Your task to perform on an android device: change your default location settings in chrome Image 0: 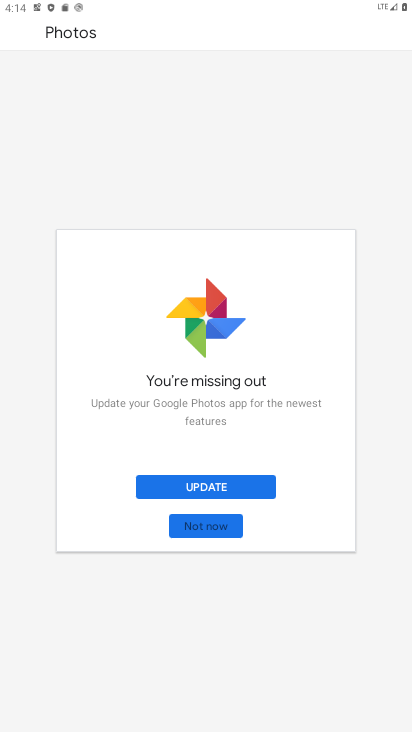
Step 0: press home button
Your task to perform on an android device: change your default location settings in chrome Image 1: 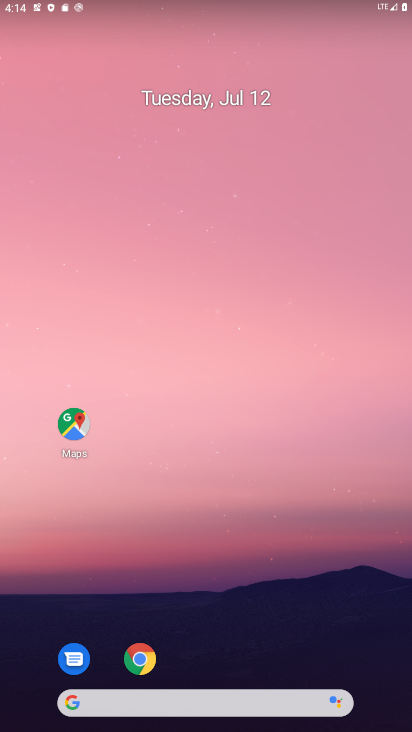
Step 1: click (139, 660)
Your task to perform on an android device: change your default location settings in chrome Image 2: 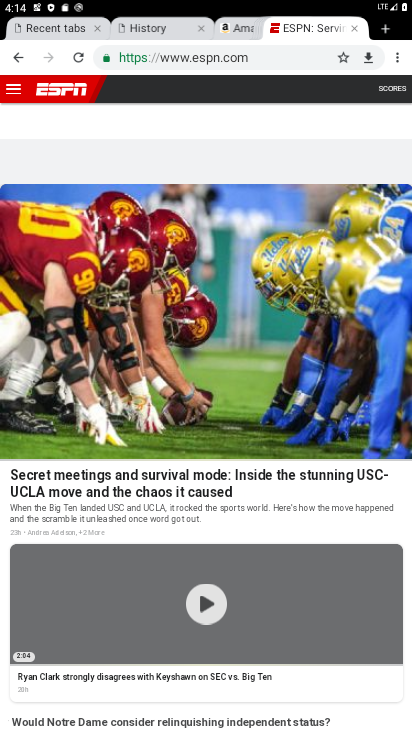
Step 2: click (398, 57)
Your task to perform on an android device: change your default location settings in chrome Image 3: 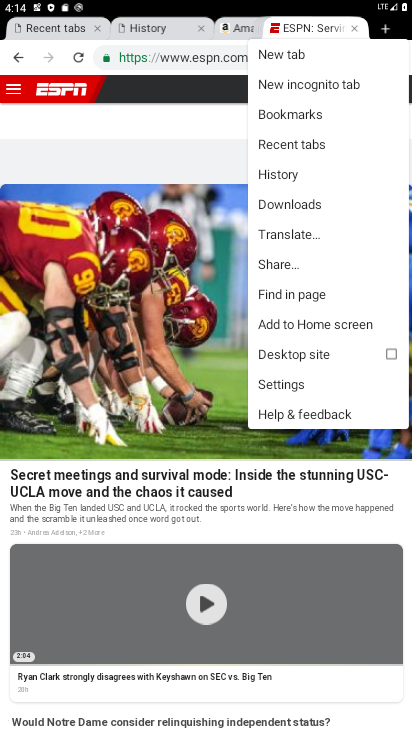
Step 3: click (297, 379)
Your task to perform on an android device: change your default location settings in chrome Image 4: 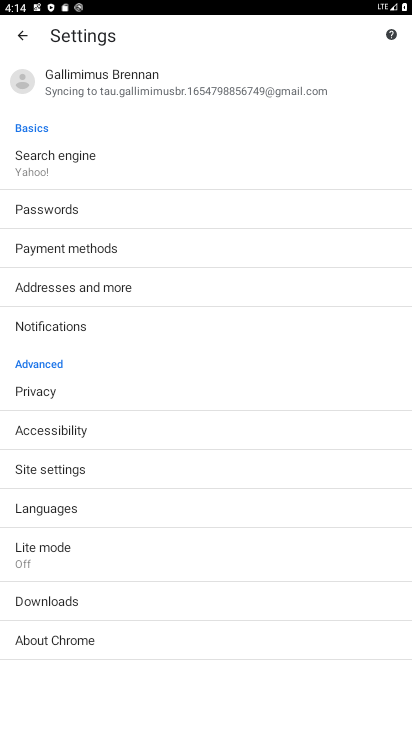
Step 4: click (43, 470)
Your task to perform on an android device: change your default location settings in chrome Image 5: 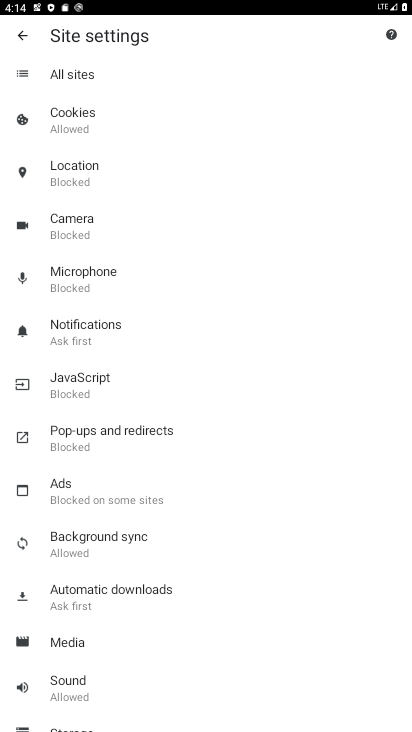
Step 5: click (73, 183)
Your task to perform on an android device: change your default location settings in chrome Image 6: 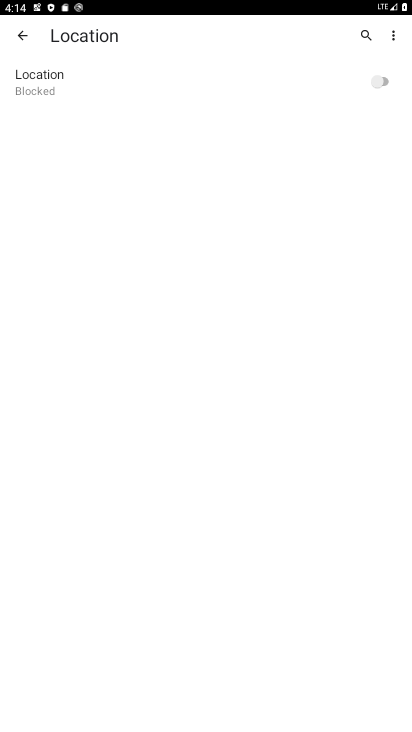
Step 6: click (384, 79)
Your task to perform on an android device: change your default location settings in chrome Image 7: 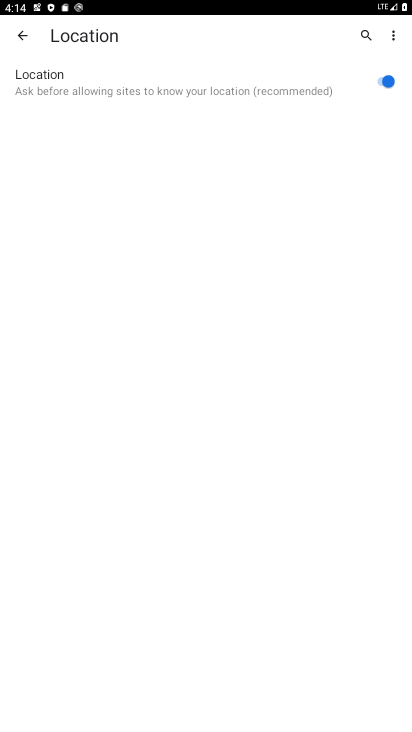
Step 7: task complete